Your task to perform on an android device: change text size in settings app Image 0: 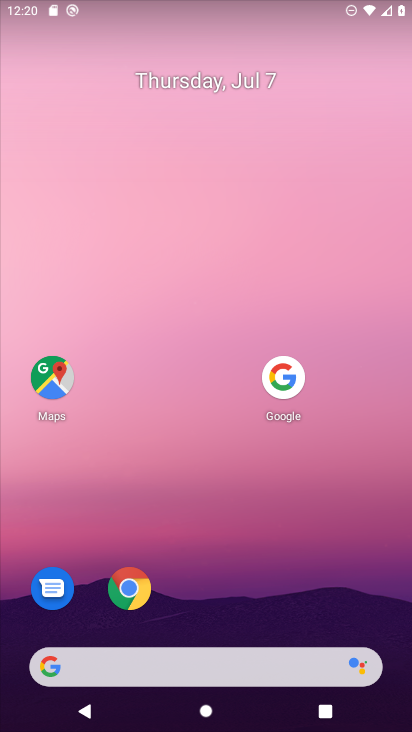
Step 0: drag from (256, 464) to (252, 4)
Your task to perform on an android device: change text size in settings app Image 1: 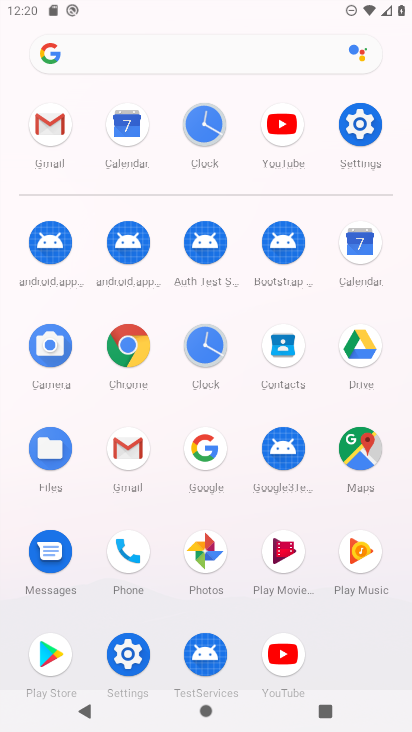
Step 1: click (355, 123)
Your task to perform on an android device: change text size in settings app Image 2: 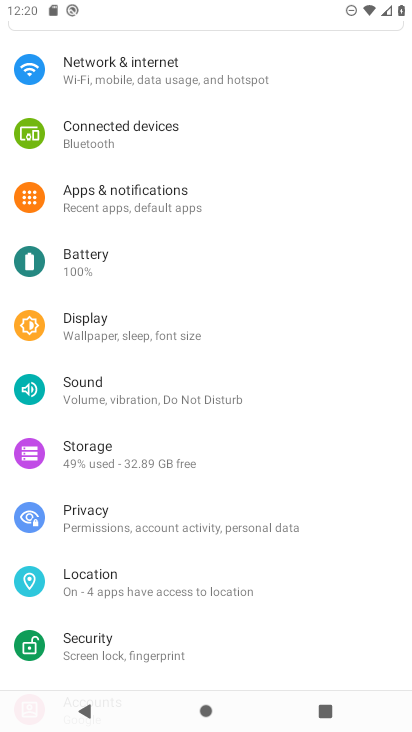
Step 2: click (133, 330)
Your task to perform on an android device: change text size in settings app Image 3: 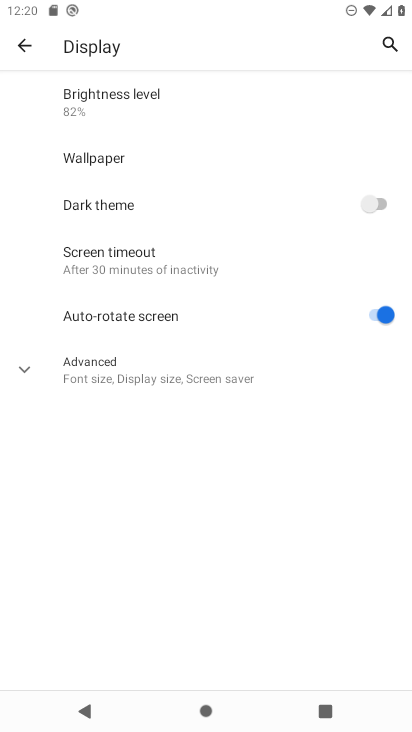
Step 3: click (128, 377)
Your task to perform on an android device: change text size in settings app Image 4: 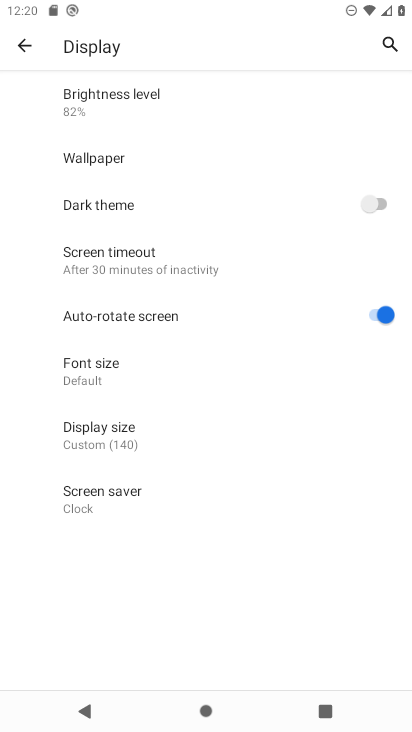
Step 4: click (81, 379)
Your task to perform on an android device: change text size in settings app Image 5: 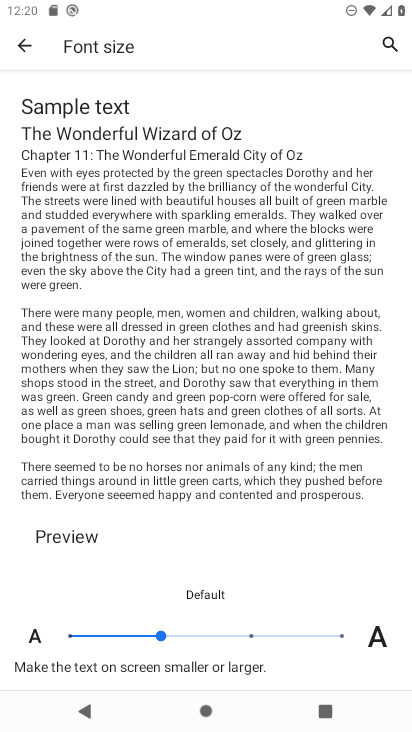
Step 5: click (252, 638)
Your task to perform on an android device: change text size in settings app Image 6: 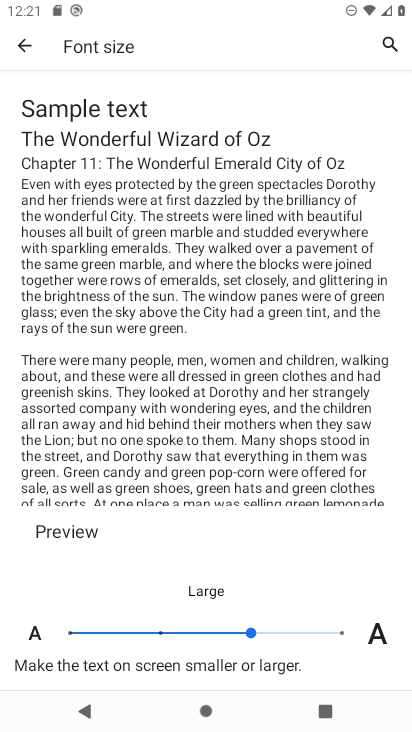
Step 6: task complete